Your task to perform on an android device: Open the calendar and show me this week's events? Image 0: 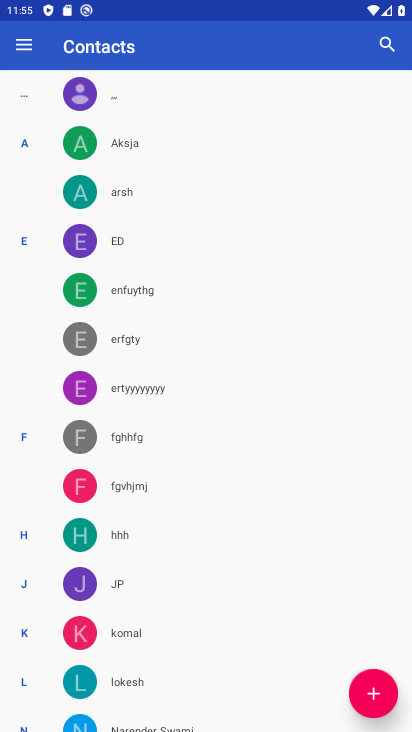
Step 0: press home button
Your task to perform on an android device: Open the calendar and show me this week's events? Image 1: 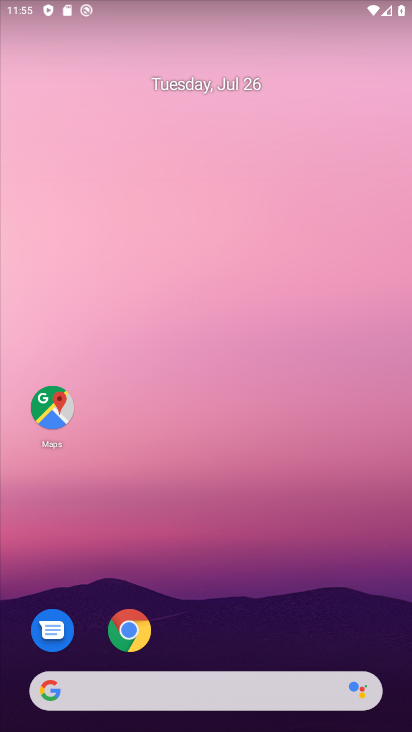
Step 1: drag from (291, 616) to (217, 74)
Your task to perform on an android device: Open the calendar and show me this week's events? Image 2: 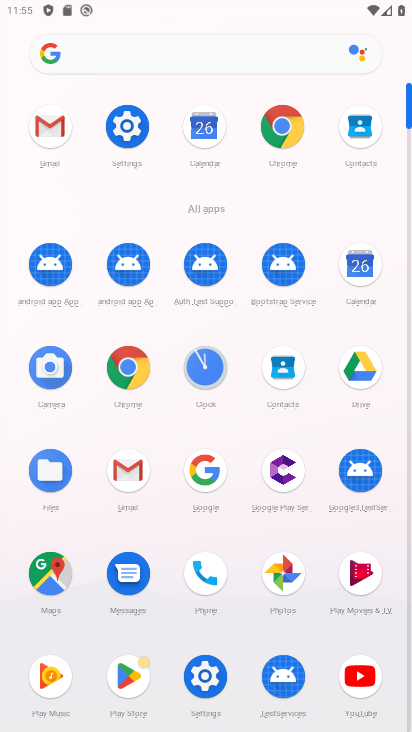
Step 2: click (375, 267)
Your task to perform on an android device: Open the calendar and show me this week's events? Image 3: 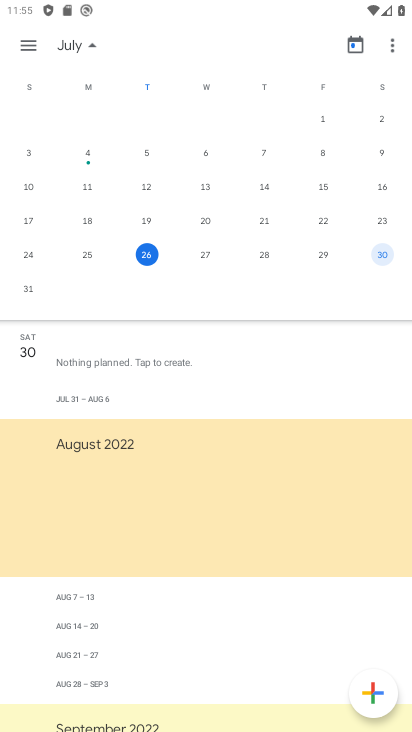
Step 3: click (155, 256)
Your task to perform on an android device: Open the calendar and show me this week's events? Image 4: 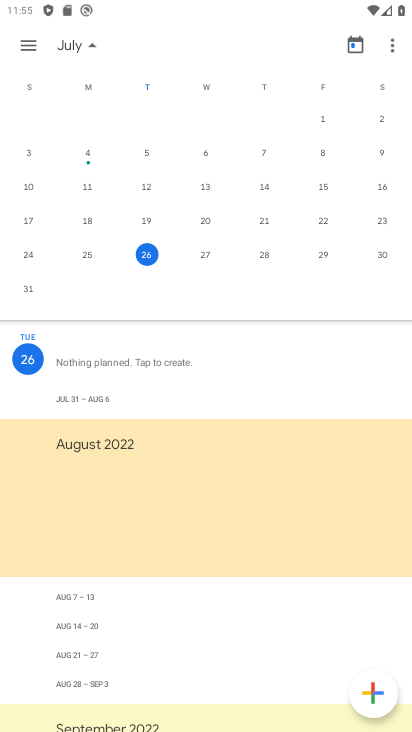
Step 4: click (208, 256)
Your task to perform on an android device: Open the calendar and show me this week's events? Image 5: 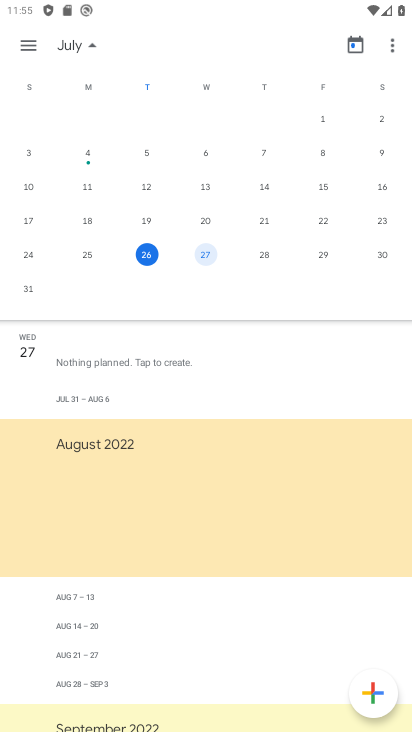
Step 5: click (283, 256)
Your task to perform on an android device: Open the calendar and show me this week's events? Image 6: 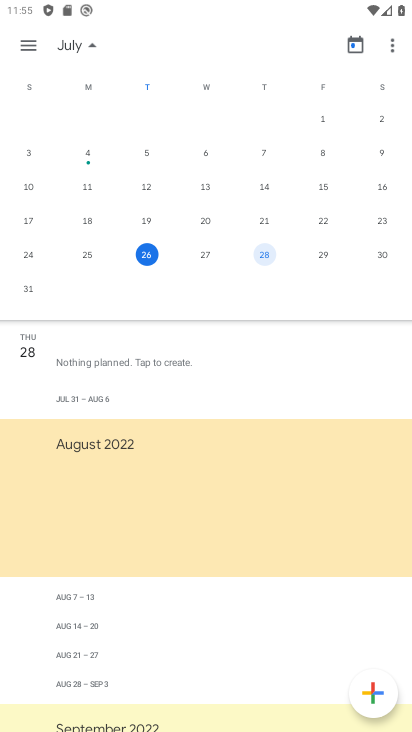
Step 6: click (335, 254)
Your task to perform on an android device: Open the calendar and show me this week's events? Image 7: 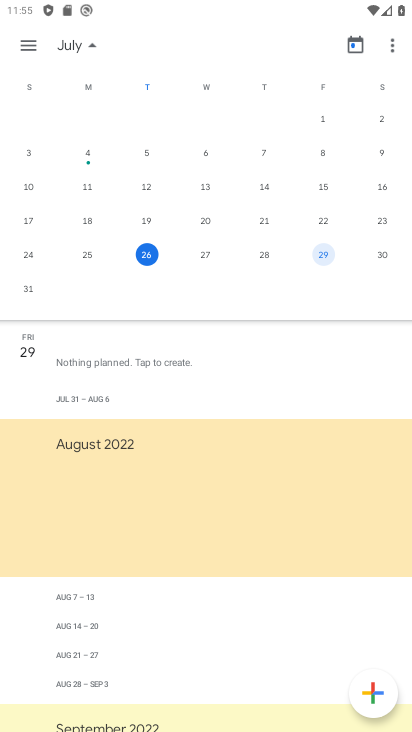
Step 7: click (395, 254)
Your task to perform on an android device: Open the calendar and show me this week's events? Image 8: 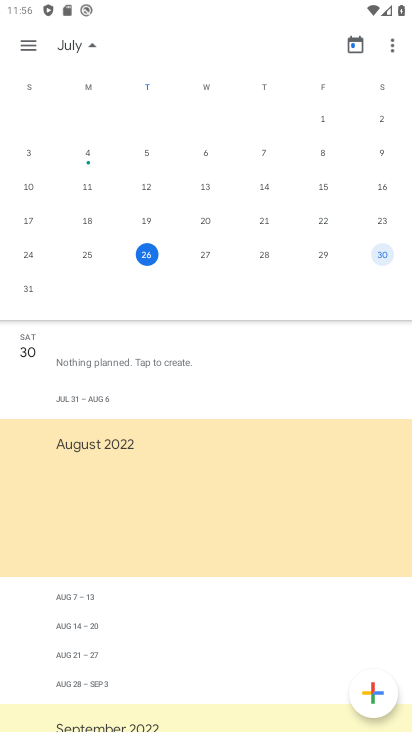
Step 8: task complete